Your task to perform on an android device: Turn off the flashlight Image 0: 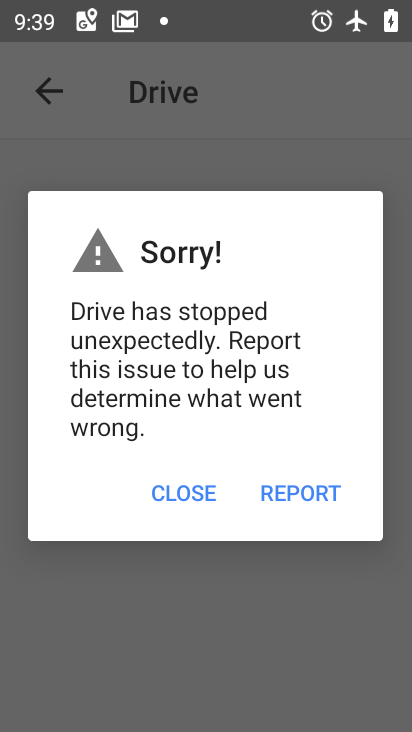
Step 0: press home button
Your task to perform on an android device: Turn off the flashlight Image 1: 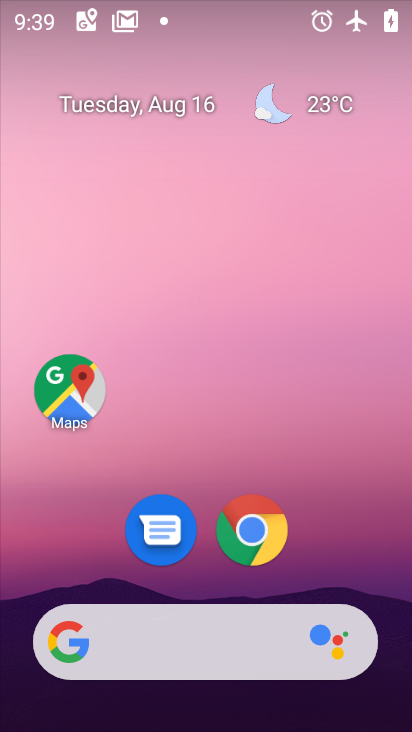
Step 1: click (352, 245)
Your task to perform on an android device: Turn off the flashlight Image 2: 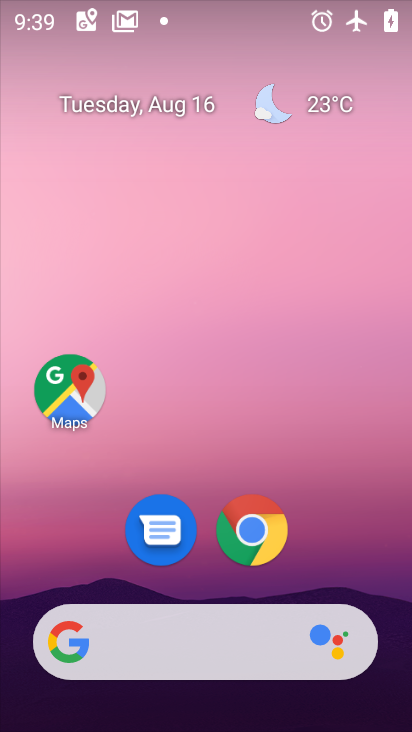
Step 2: drag from (351, 521) to (370, 137)
Your task to perform on an android device: Turn off the flashlight Image 3: 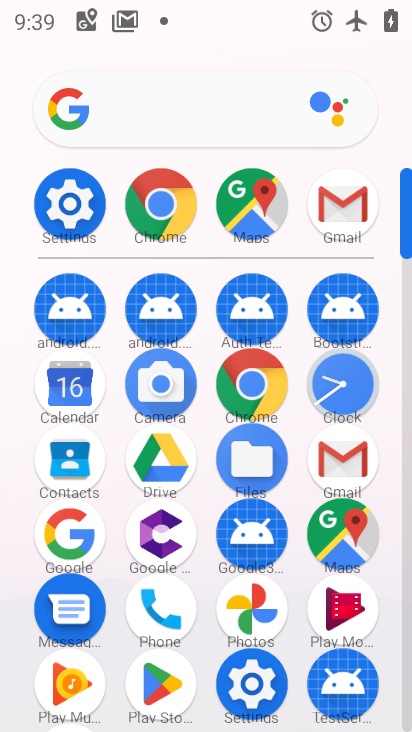
Step 3: click (241, 691)
Your task to perform on an android device: Turn off the flashlight Image 4: 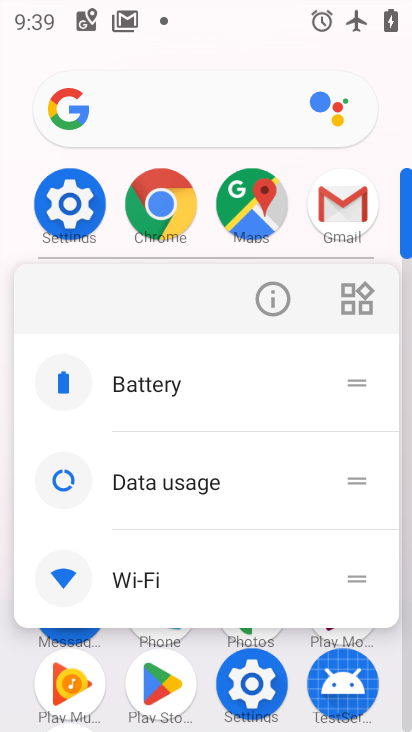
Step 4: click (245, 685)
Your task to perform on an android device: Turn off the flashlight Image 5: 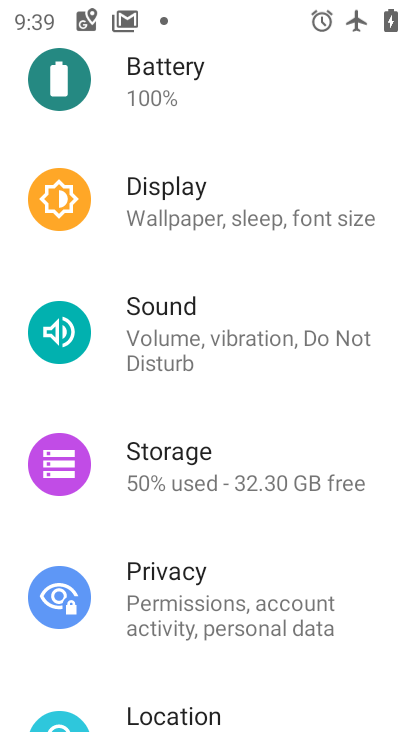
Step 5: drag from (264, 154) to (269, 349)
Your task to perform on an android device: Turn off the flashlight Image 6: 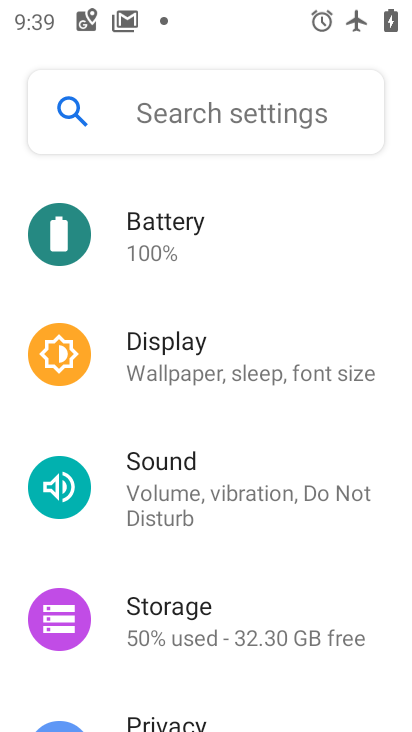
Step 6: click (214, 367)
Your task to perform on an android device: Turn off the flashlight Image 7: 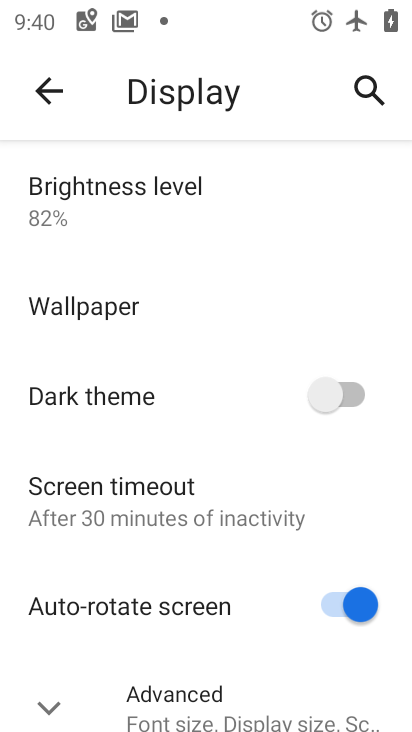
Step 7: task complete